Your task to perform on an android device: check google app version Image 0: 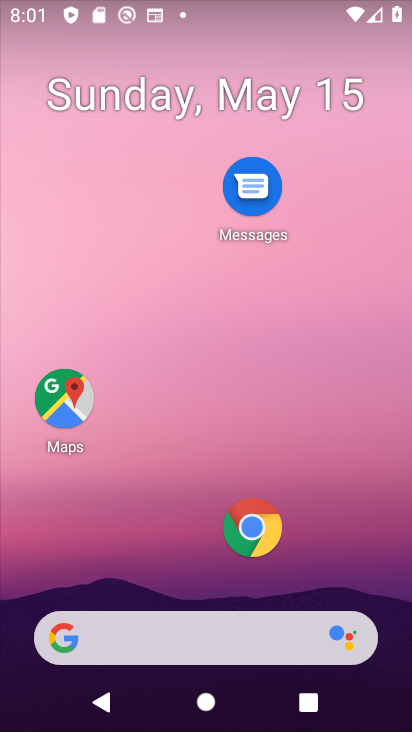
Step 0: press home button
Your task to perform on an android device: check google app version Image 1: 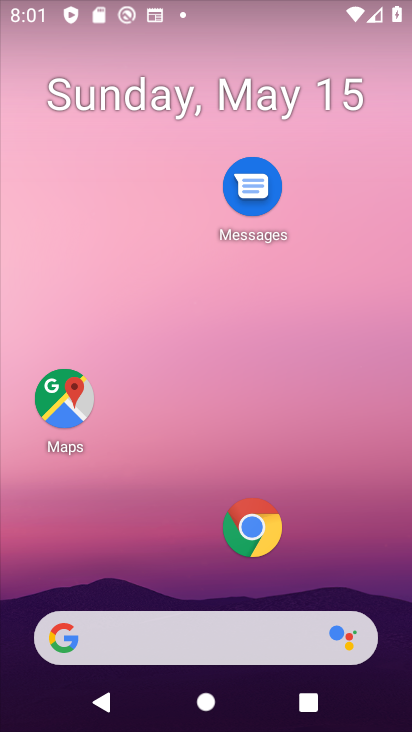
Step 1: drag from (151, 646) to (327, 137)
Your task to perform on an android device: check google app version Image 2: 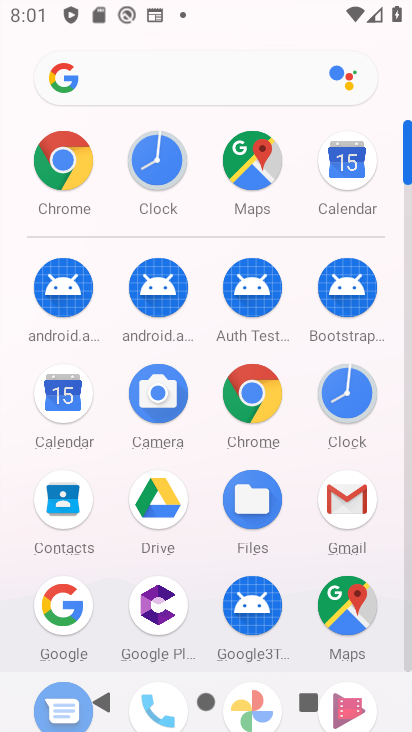
Step 2: drag from (78, 608) to (192, 443)
Your task to perform on an android device: check google app version Image 3: 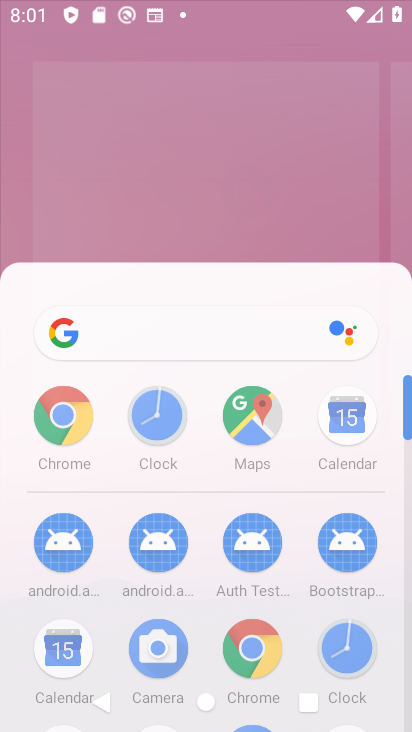
Step 3: click (219, 394)
Your task to perform on an android device: check google app version Image 4: 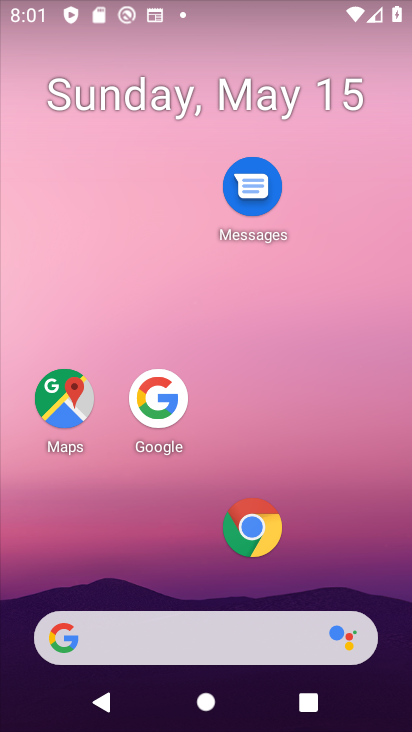
Step 4: click (168, 399)
Your task to perform on an android device: check google app version Image 5: 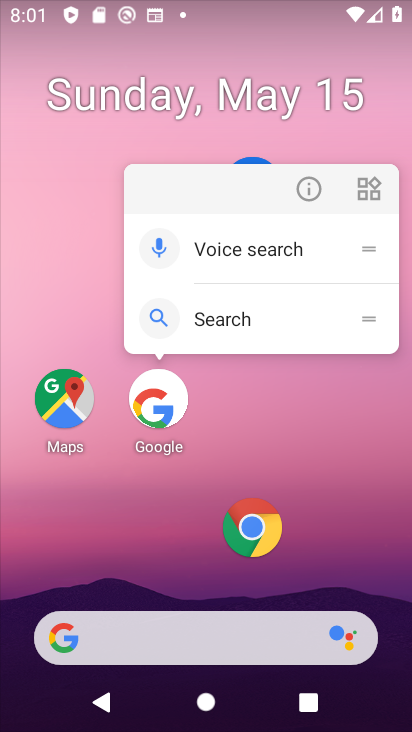
Step 5: click (309, 188)
Your task to perform on an android device: check google app version Image 6: 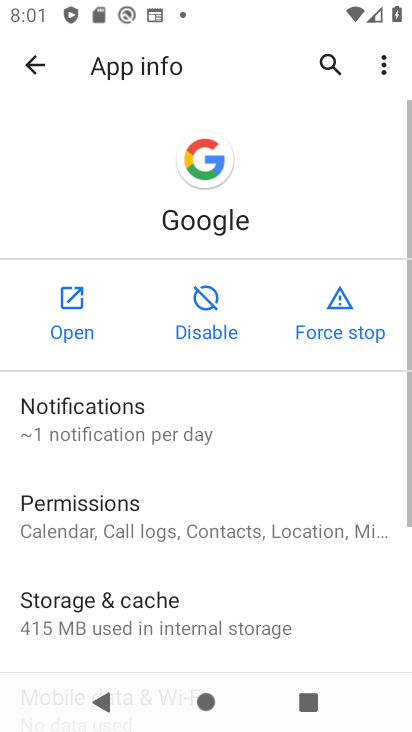
Step 6: drag from (156, 601) to (373, 101)
Your task to perform on an android device: check google app version Image 7: 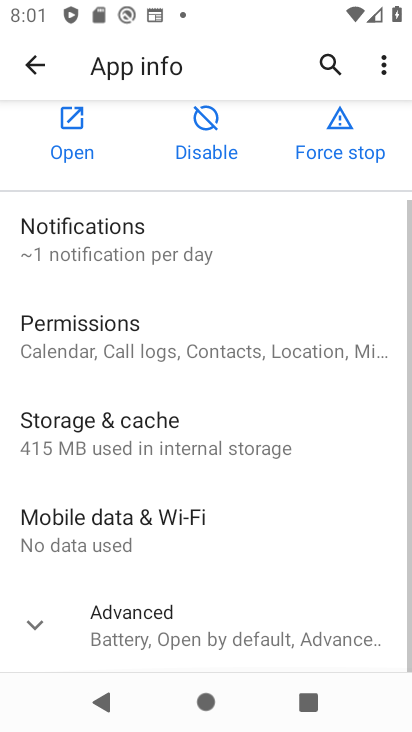
Step 7: click (141, 607)
Your task to perform on an android device: check google app version Image 8: 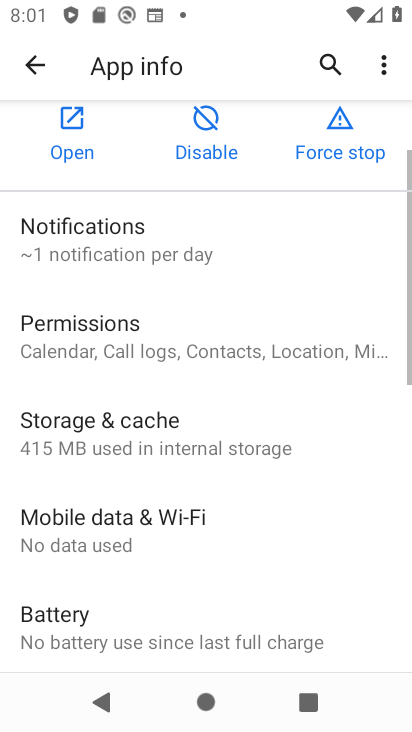
Step 8: task complete